Your task to perform on an android device: toggle wifi Image 0: 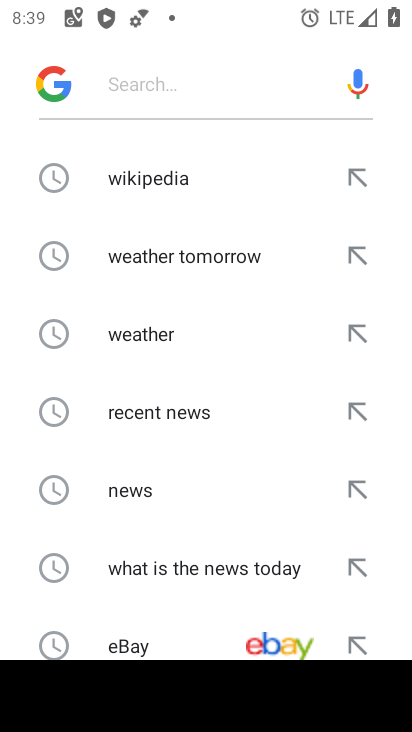
Step 0: press home button
Your task to perform on an android device: toggle wifi Image 1: 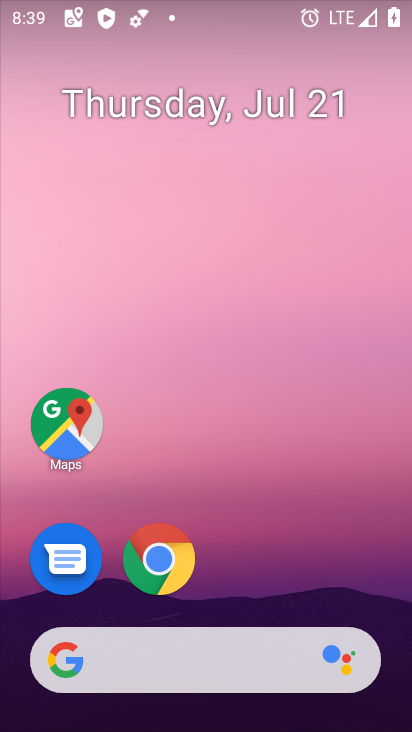
Step 1: drag from (352, 535) to (411, 268)
Your task to perform on an android device: toggle wifi Image 2: 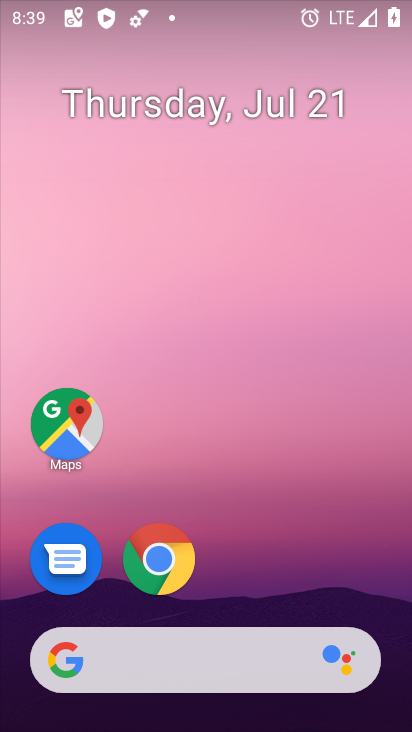
Step 2: drag from (373, 569) to (401, 44)
Your task to perform on an android device: toggle wifi Image 3: 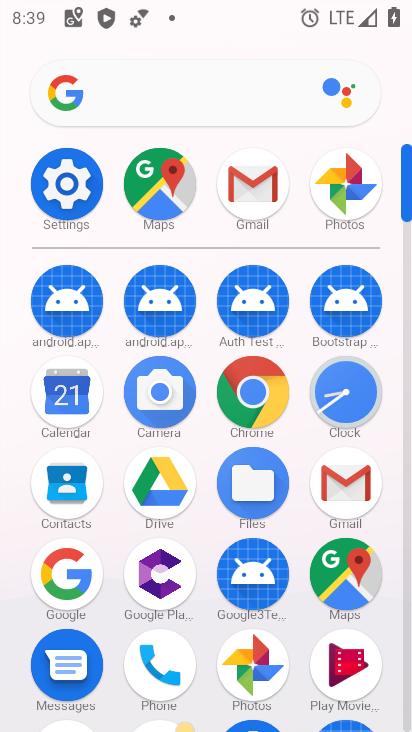
Step 3: click (68, 173)
Your task to perform on an android device: toggle wifi Image 4: 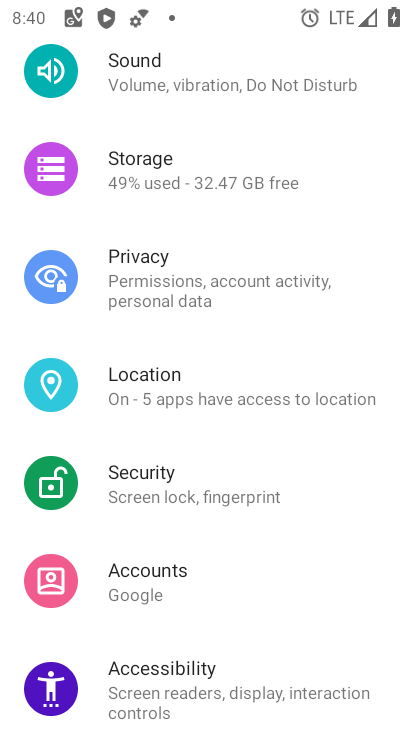
Step 4: drag from (333, 207) to (341, 328)
Your task to perform on an android device: toggle wifi Image 5: 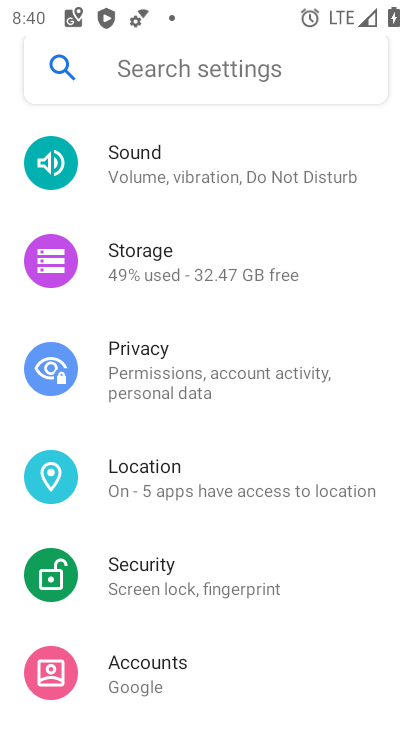
Step 5: drag from (369, 227) to (366, 354)
Your task to perform on an android device: toggle wifi Image 6: 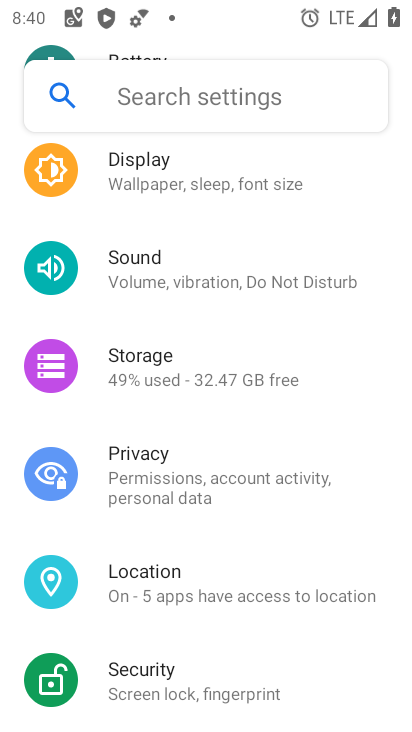
Step 6: drag from (378, 255) to (358, 394)
Your task to perform on an android device: toggle wifi Image 7: 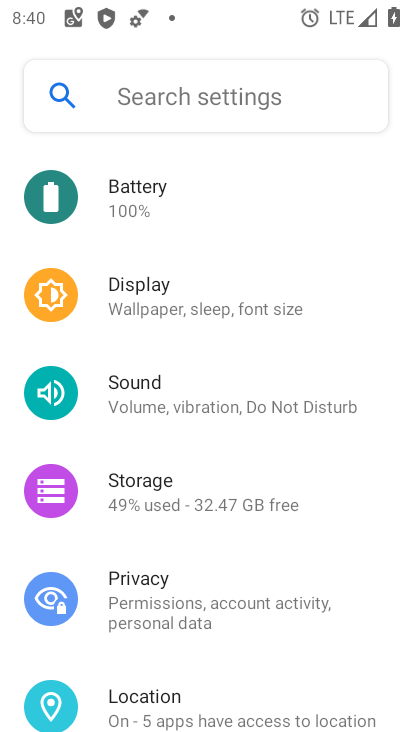
Step 7: drag from (350, 292) to (349, 395)
Your task to perform on an android device: toggle wifi Image 8: 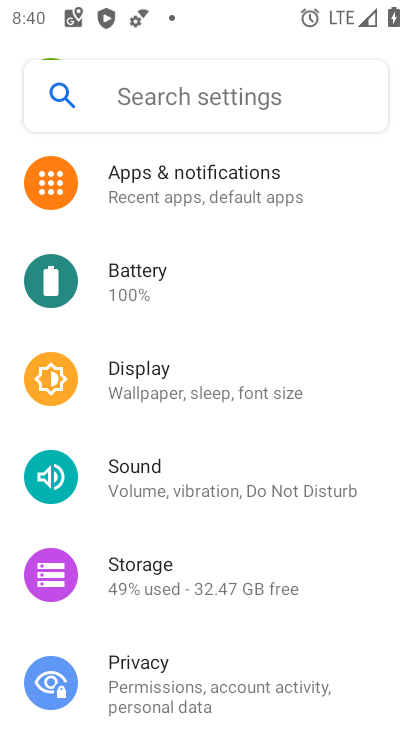
Step 8: drag from (357, 281) to (356, 401)
Your task to perform on an android device: toggle wifi Image 9: 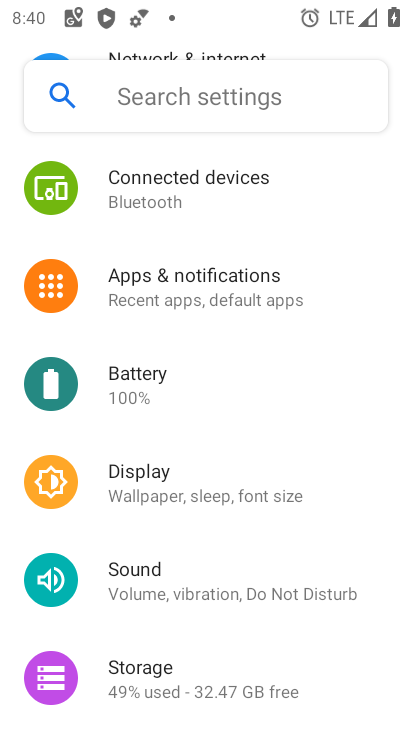
Step 9: drag from (356, 289) to (356, 395)
Your task to perform on an android device: toggle wifi Image 10: 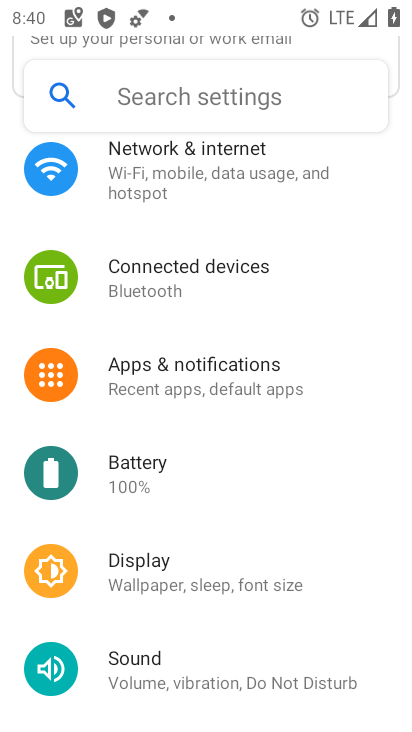
Step 10: drag from (347, 260) to (340, 394)
Your task to perform on an android device: toggle wifi Image 11: 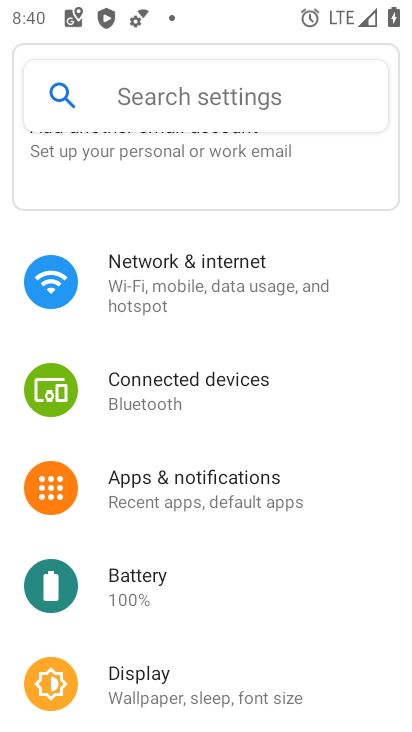
Step 11: drag from (363, 295) to (368, 468)
Your task to perform on an android device: toggle wifi Image 12: 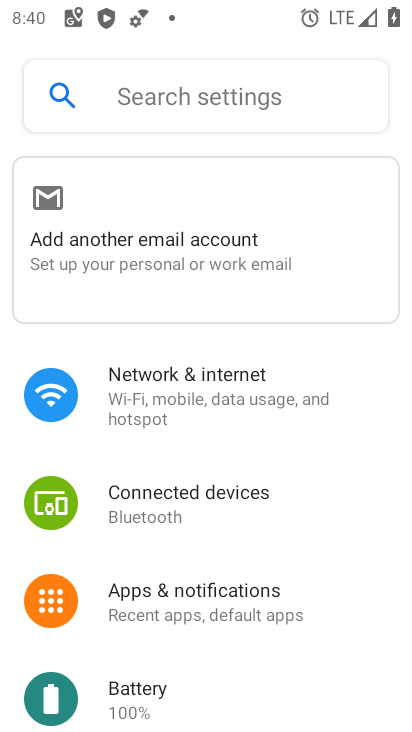
Step 12: click (331, 402)
Your task to perform on an android device: toggle wifi Image 13: 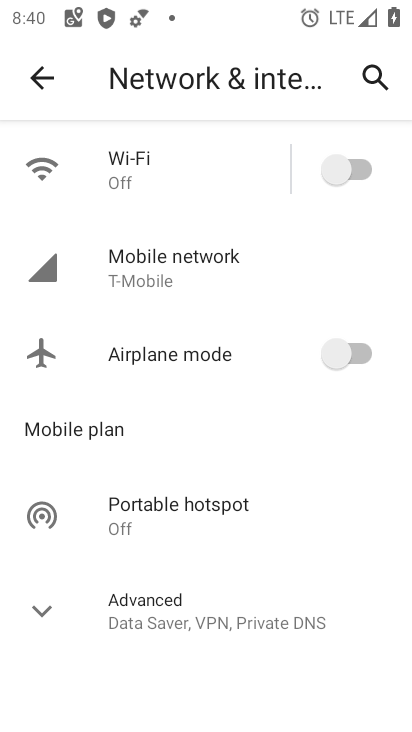
Step 13: click (342, 180)
Your task to perform on an android device: toggle wifi Image 14: 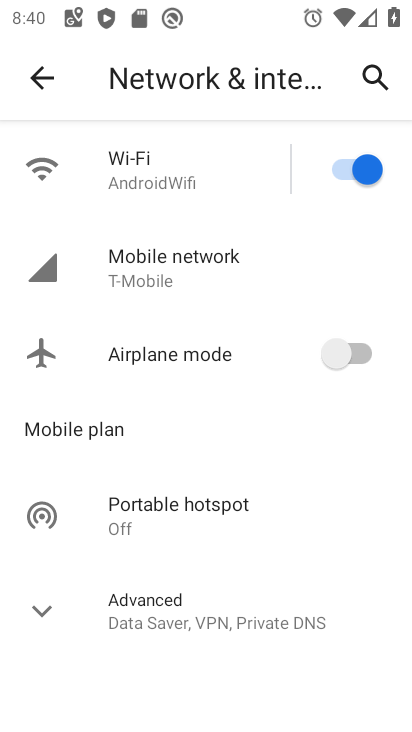
Step 14: task complete